Your task to perform on an android device: Open Youtube and go to "Your channel" Image 0: 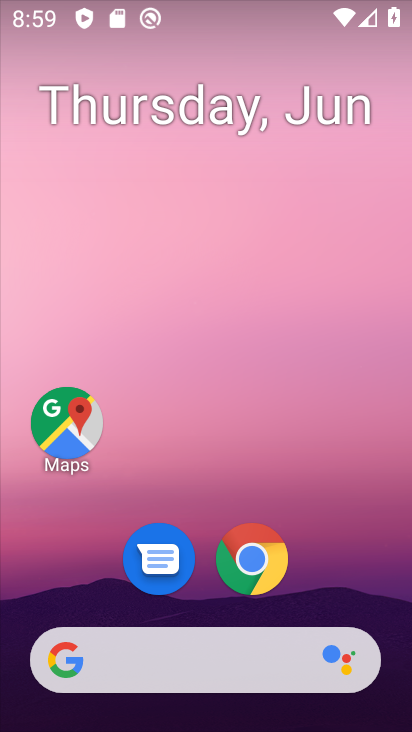
Step 0: drag from (317, 577) to (355, 46)
Your task to perform on an android device: Open Youtube and go to "Your channel" Image 1: 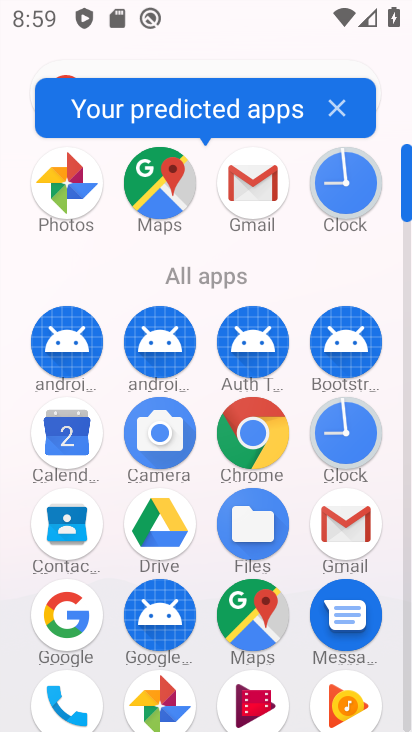
Step 1: drag from (164, 281) to (205, 15)
Your task to perform on an android device: Open Youtube and go to "Your channel" Image 2: 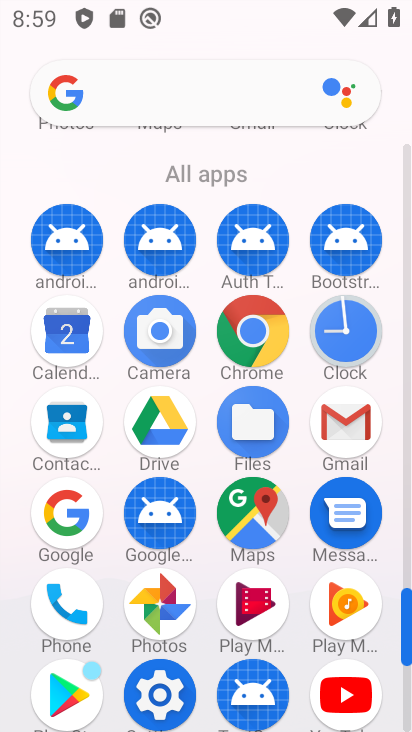
Step 2: click (365, 697)
Your task to perform on an android device: Open Youtube and go to "Your channel" Image 3: 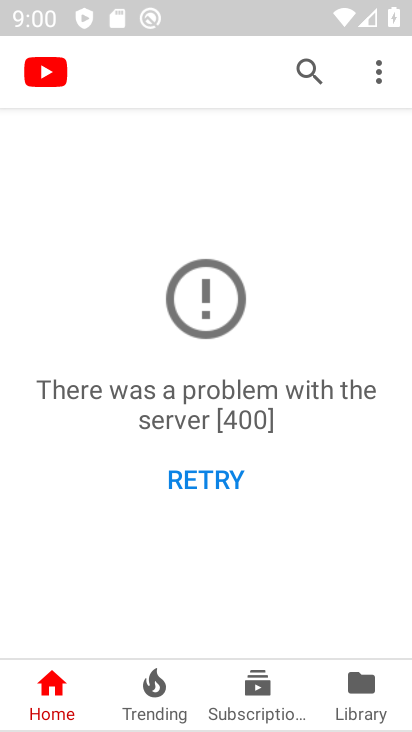
Step 3: click (380, 677)
Your task to perform on an android device: Open Youtube and go to "Your channel" Image 4: 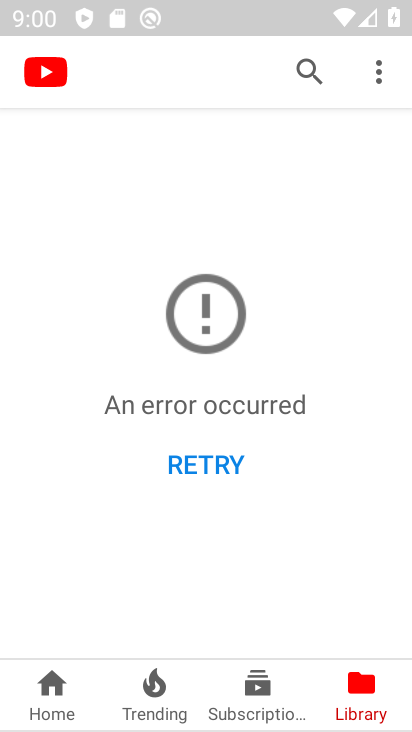
Step 4: click (390, 97)
Your task to perform on an android device: Open Youtube and go to "Your channel" Image 5: 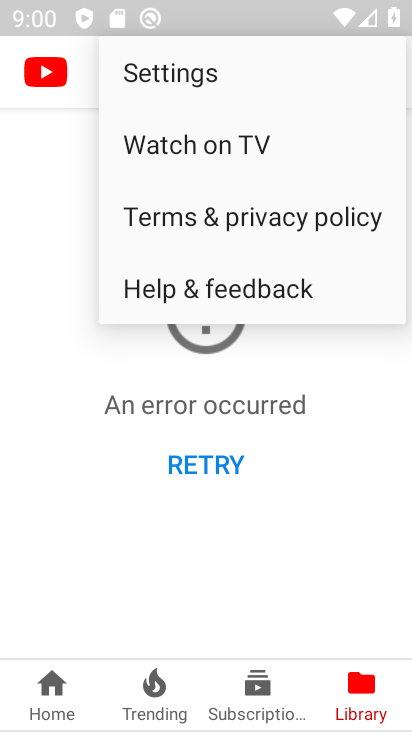
Step 5: click (213, 466)
Your task to perform on an android device: Open Youtube and go to "Your channel" Image 6: 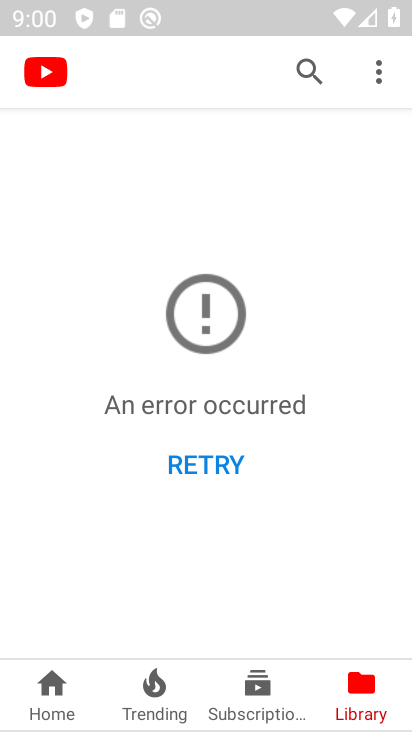
Step 6: click (213, 466)
Your task to perform on an android device: Open Youtube and go to "Your channel" Image 7: 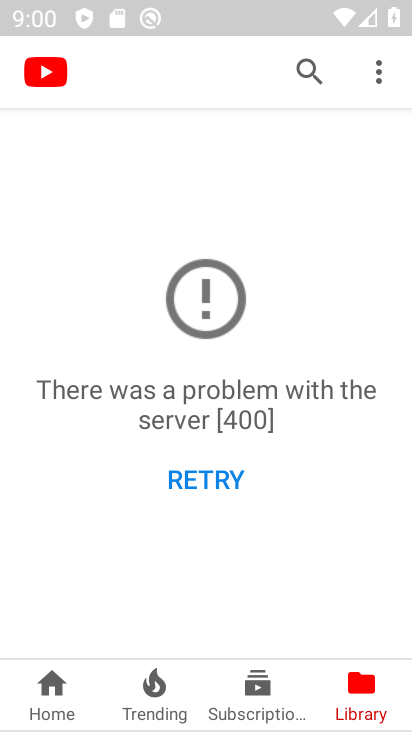
Step 7: click (213, 466)
Your task to perform on an android device: Open Youtube and go to "Your channel" Image 8: 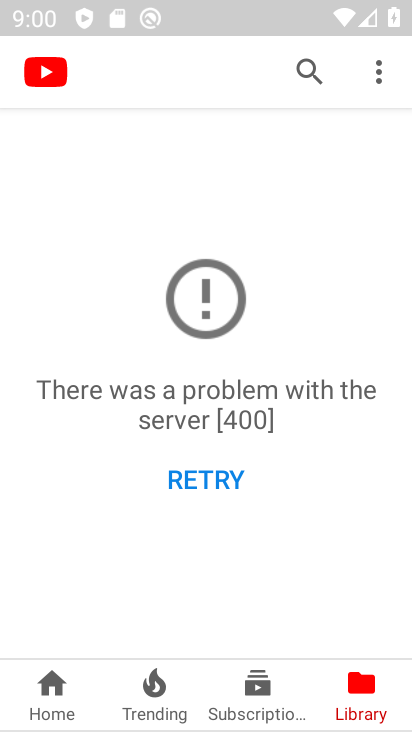
Step 8: task complete